Your task to perform on an android device: Go to Yahoo.com Image 0: 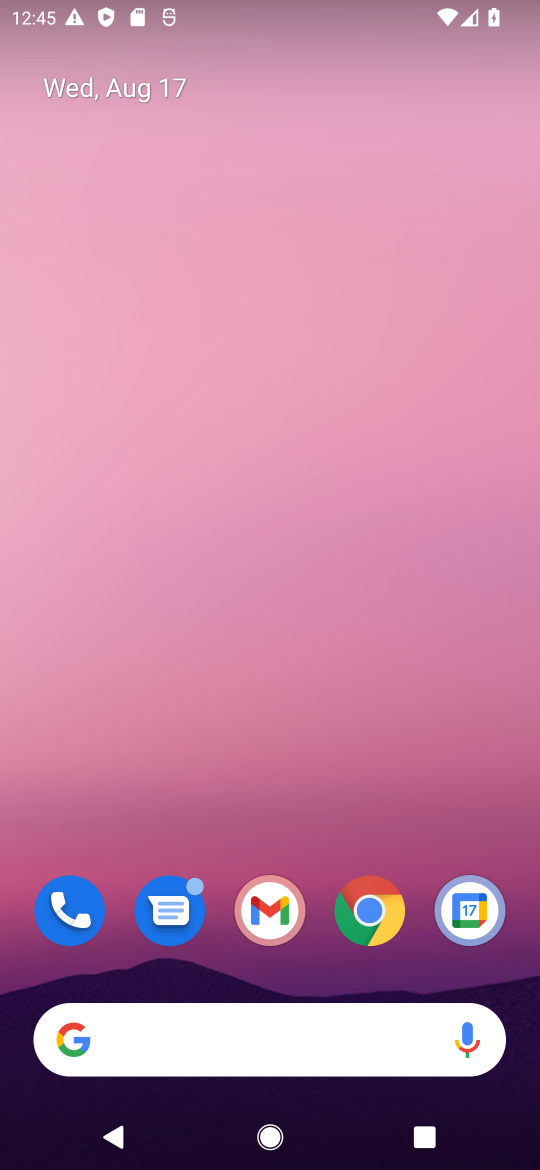
Step 0: click (368, 909)
Your task to perform on an android device: Go to Yahoo.com Image 1: 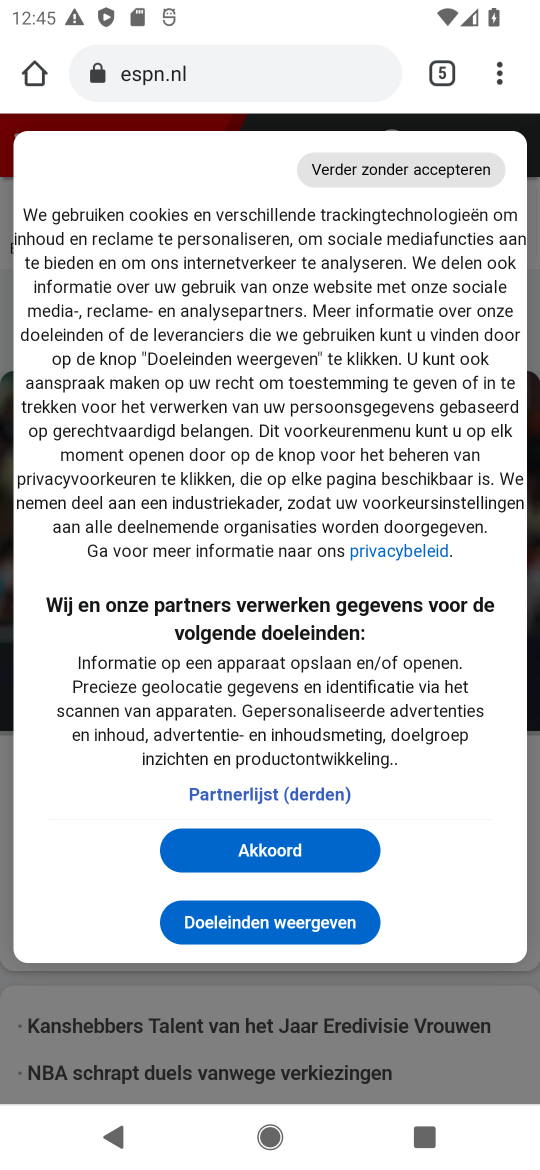
Step 1: click (438, 74)
Your task to perform on an android device: Go to Yahoo.com Image 2: 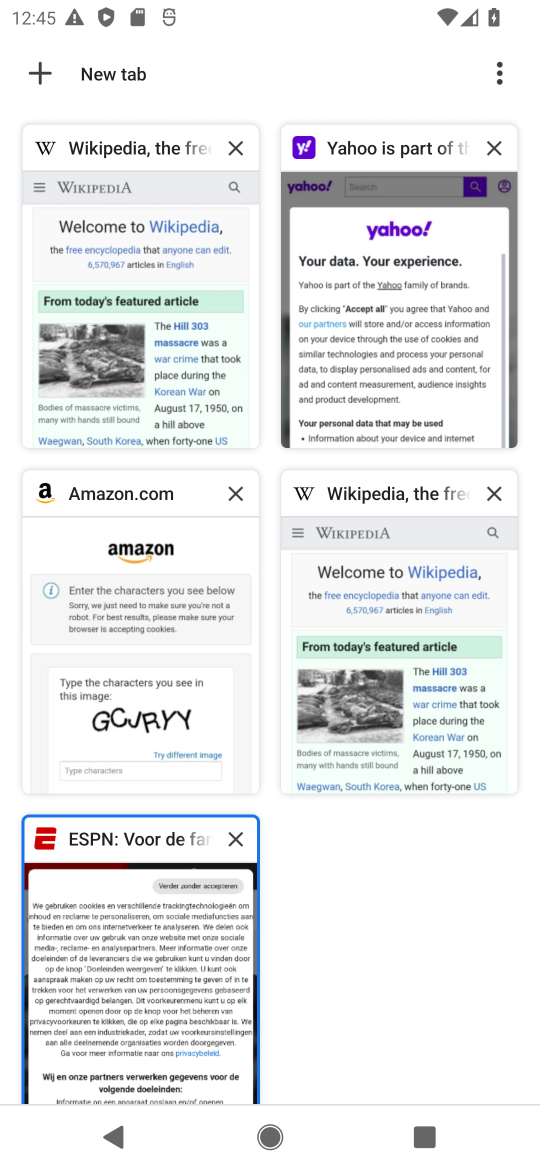
Step 2: click (347, 276)
Your task to perform on an android device: Go to Yahoo.com Image 3: 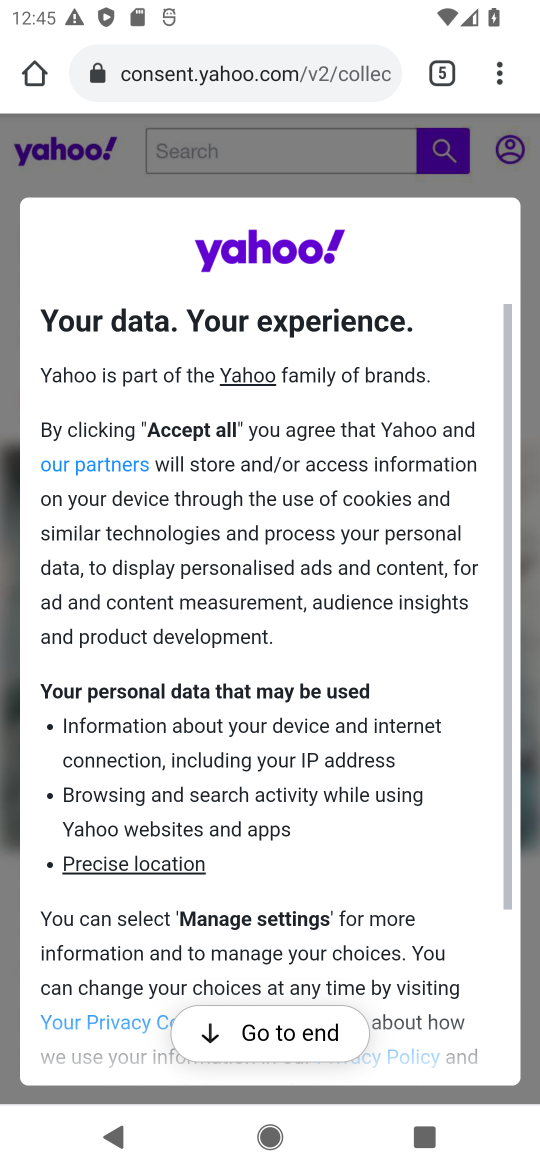
Step 3: task complete